Your task to perform on an android device: Open the stopwatch Image 0: 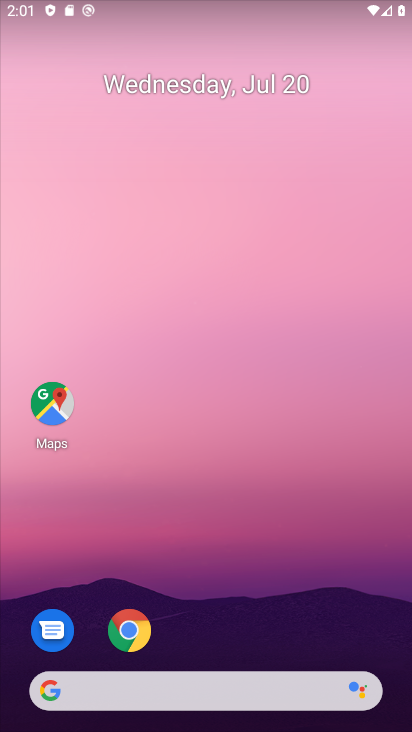
Step 0: drag from (360, 604) to (410, 497)
Your task to perform on an android device: Open the stopwatch Image 1: 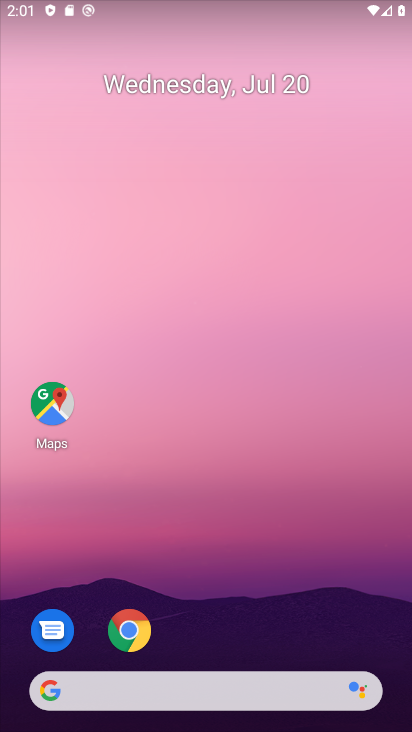
Step 1: drag from (289, 587) to (330, 52)
Your task to perform on an android device: Open the stopwatch Image 2: 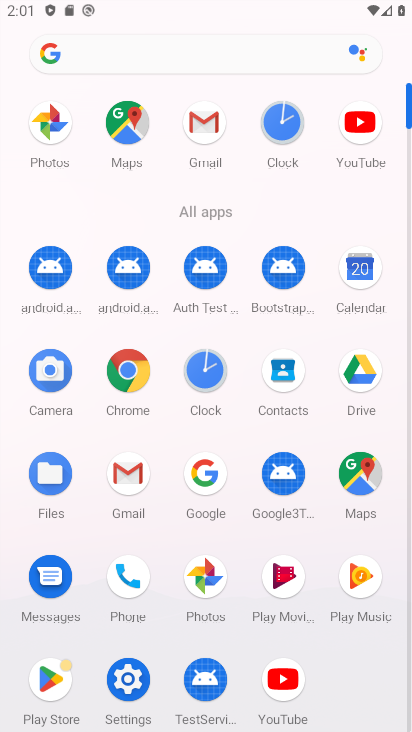
Step 2: click (211, 375)
Your task to perform on an android device: Open the stopwatch Image 3: 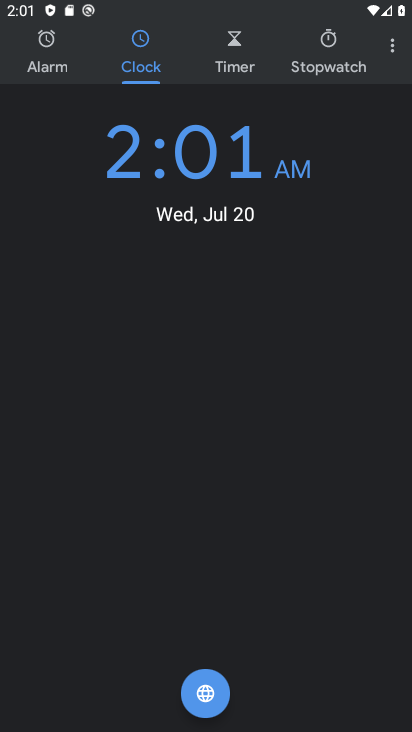
Step 3: click (338, 55)
Your task to perform on an android device: Open the stopwatch Image 4: 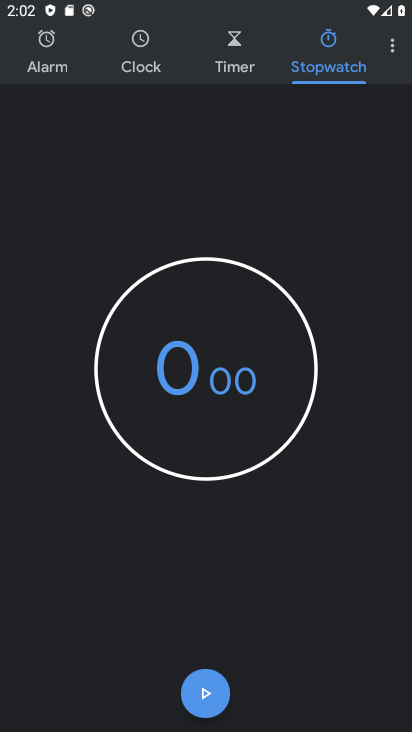
Step 4: task complete